Your task to perform on an android device: open chrome privacy settings Image 0: 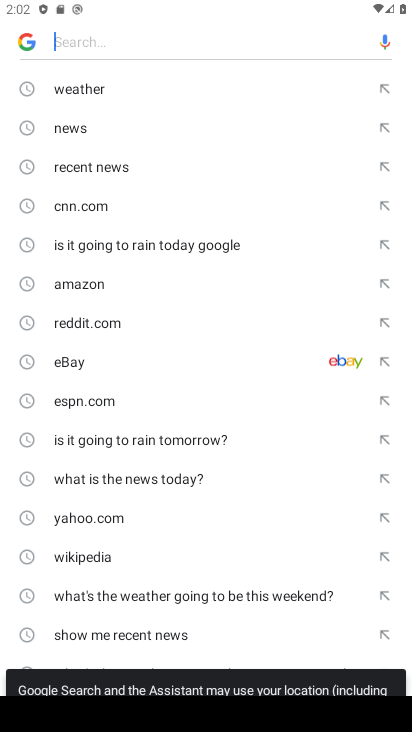
Step 0: press home button
Your task to perform on an android device: open chrome privacy settings Image 1: 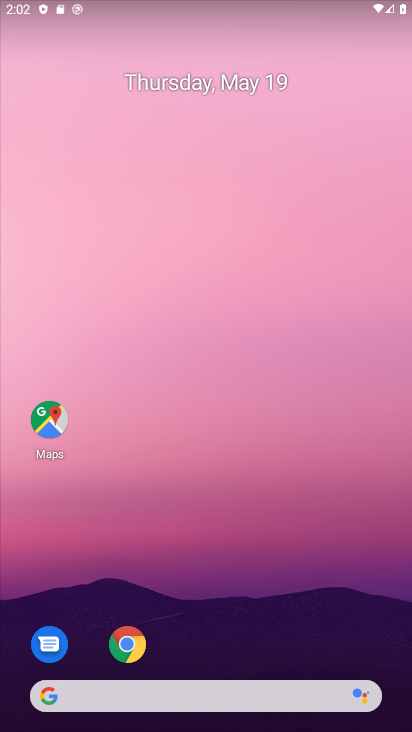
Step 1: drag from (224, 513) to (234, 307)
Your task to perform on an android device: open chrome privacy settings Image 2: 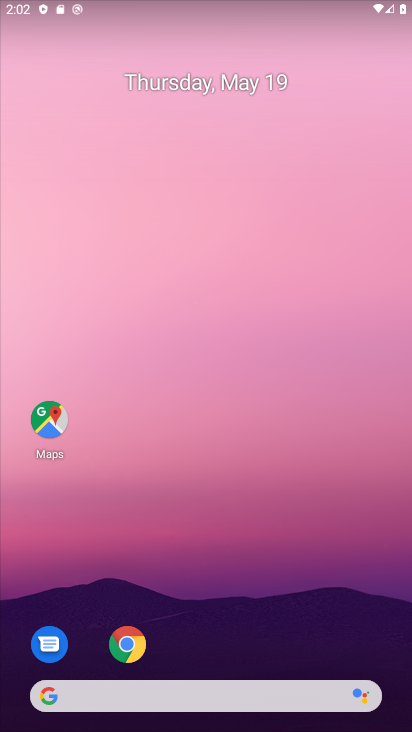
Step 2: drag from (272, 626) to (272, 230)
Your task to perform on an android device: open chrome privacy settings Image 3: 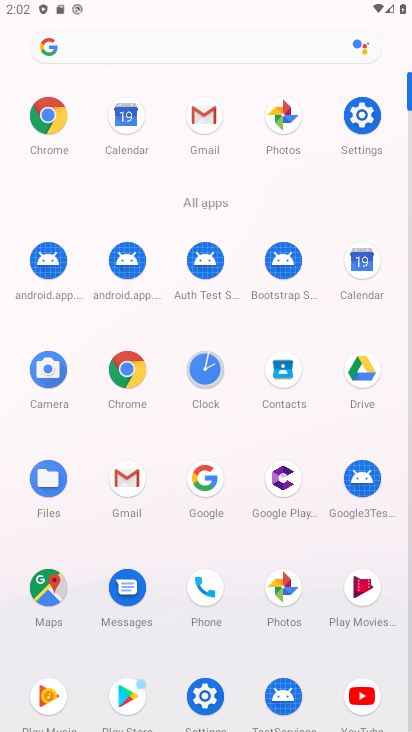
Step 3: click (39, 117)
Your task to perform on an android device: open chrome privacy settings Image 4: 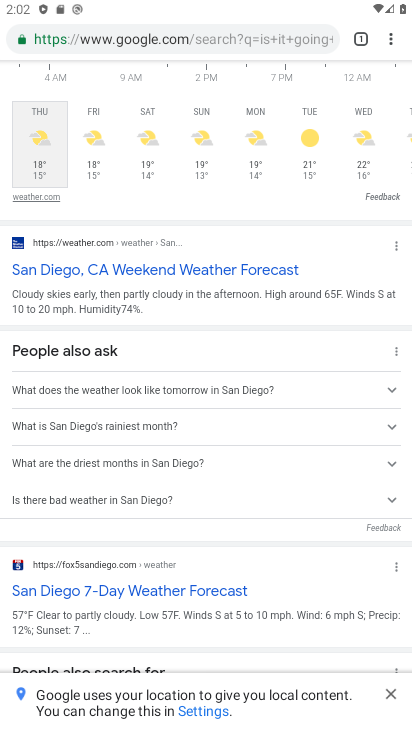
Step 4: click (396, 39)
Your task to perform on an android device: open chrome privacy settings Image 5: 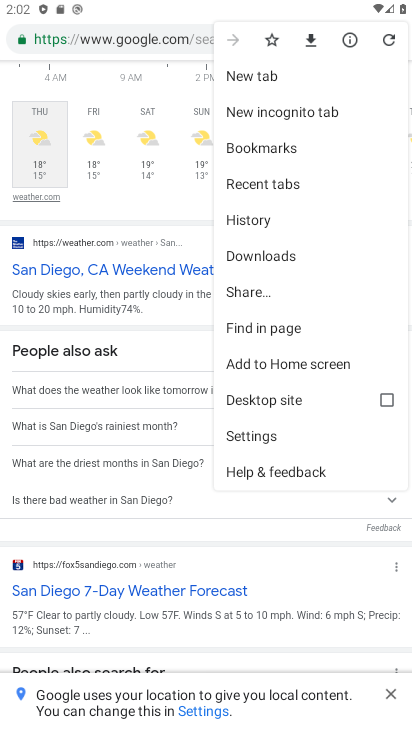
Step 5: click (273, 437)
Your task to perform on an android device: open chrome privacy settings Image 6: 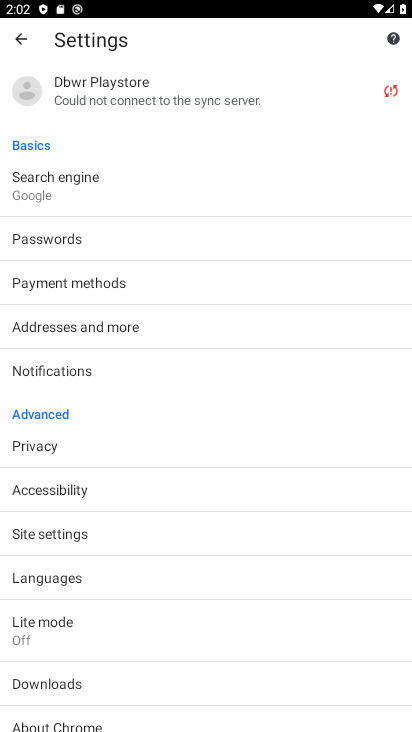
Step 6: click (72, 448)
Your task to perform on an android device: open chrome privacy settings Image 7: 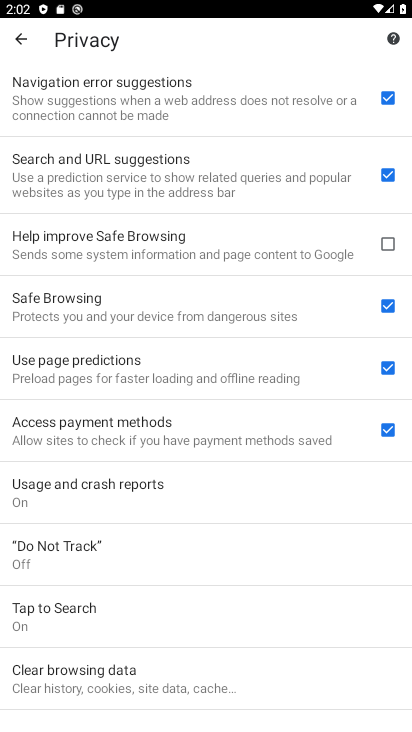
Step 7: task complete